Your task to perform on an android device: search for starred emails in the gmail app Image 0: 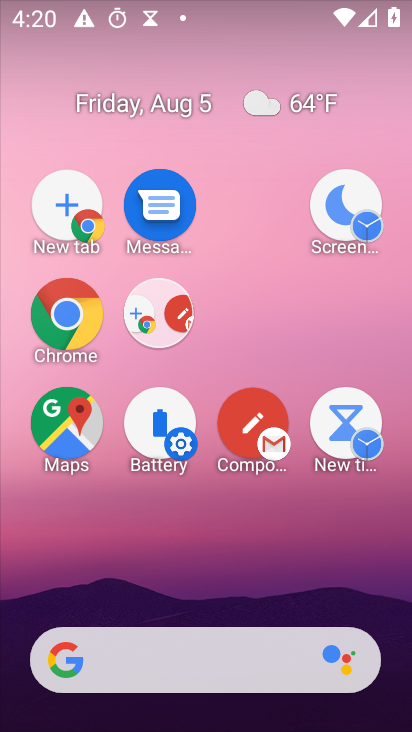
Step 0: press back button
Your task to perform on an android device: search for starred emails in the gmail app Image 1: 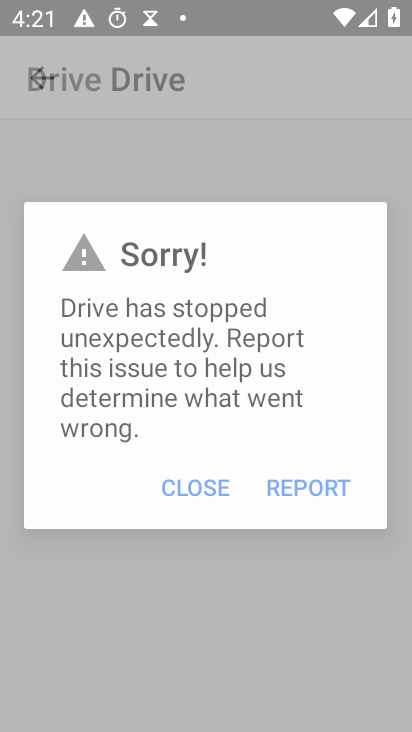
Step 1: task complete